Your task to perform on an android device: Open Google Maps and go to "Timeline" Image 0: 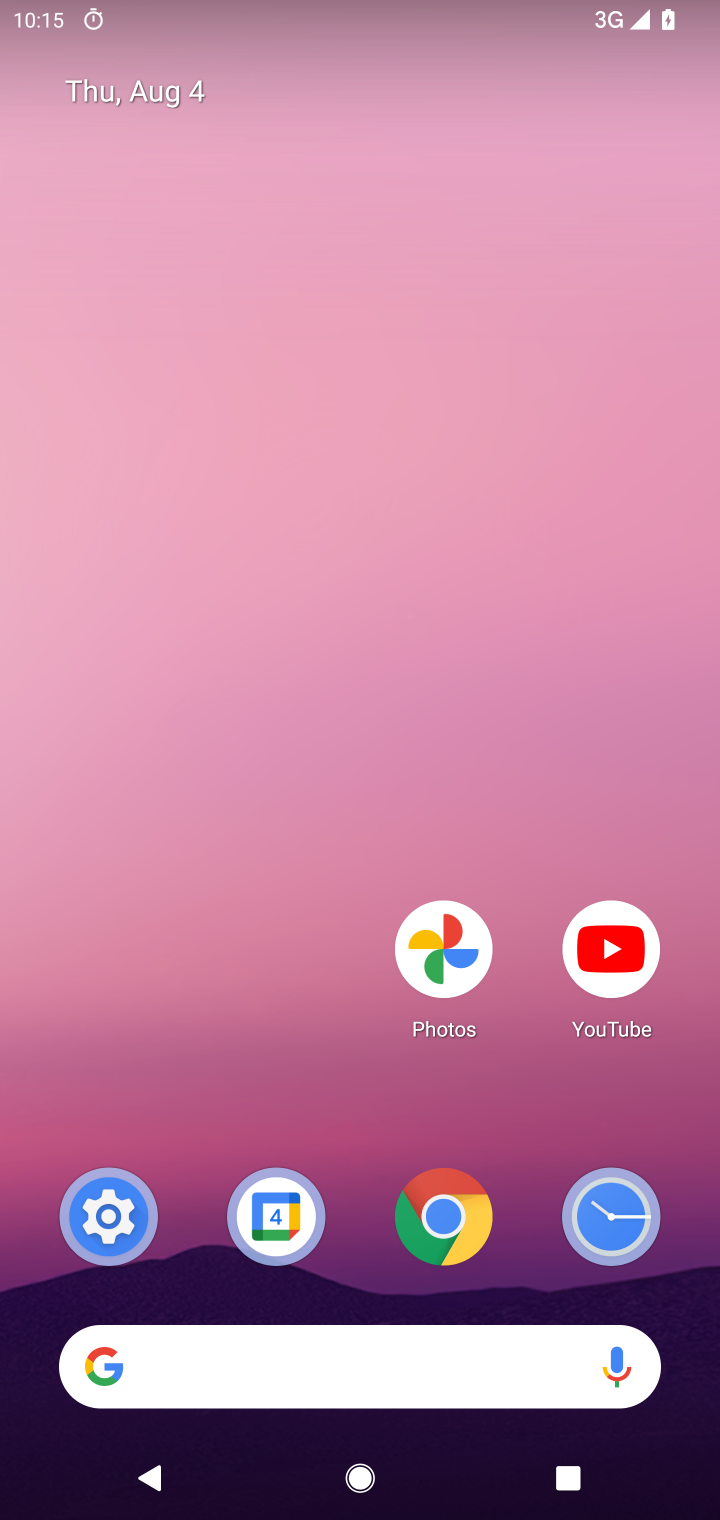
Step 0: drag from (359, 1011) to (370, 135)
Your task to perform on an android device: Open Google Maps and go to "Timeline" Image 1: 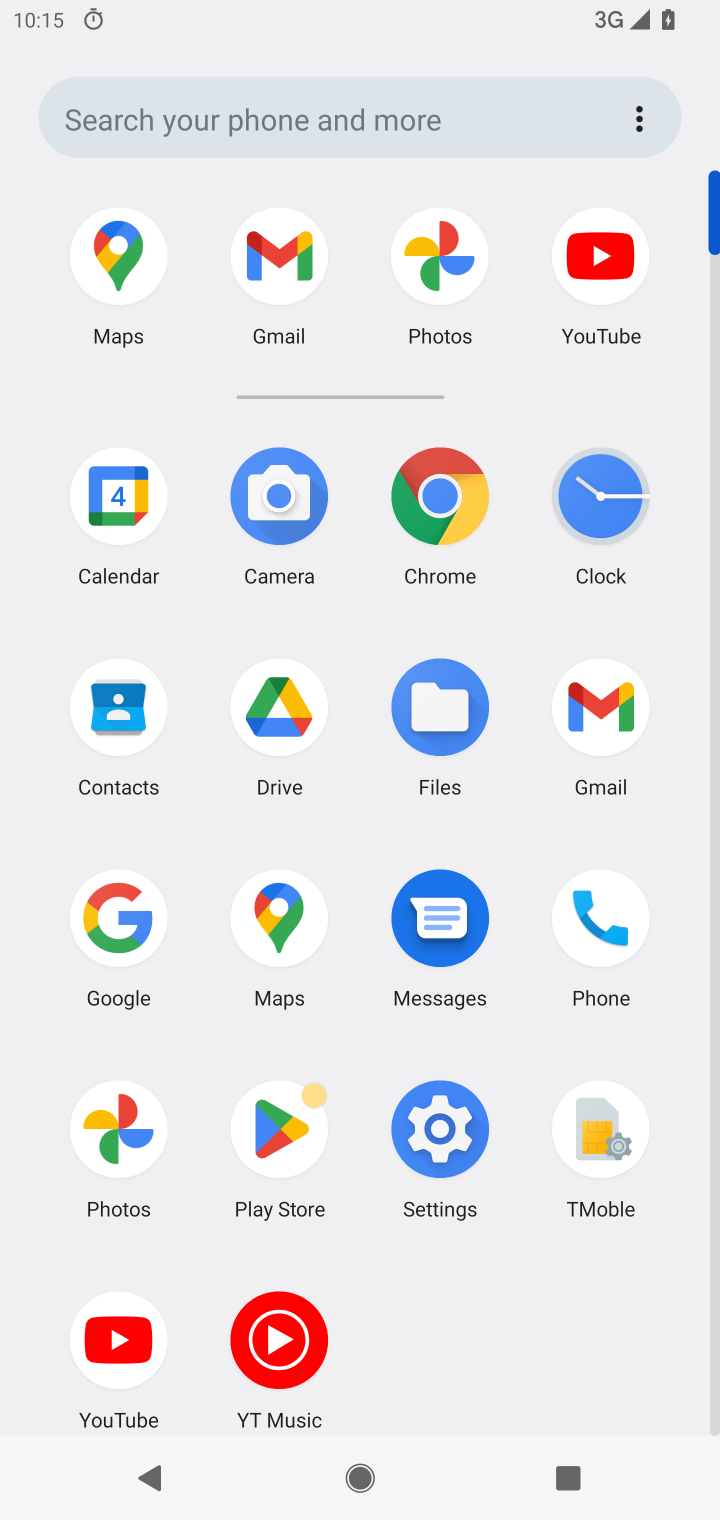
Step 1: click (270, 916)
Your task to perform on an android device: Open Google Maps and go to "Timeline" Image 2: 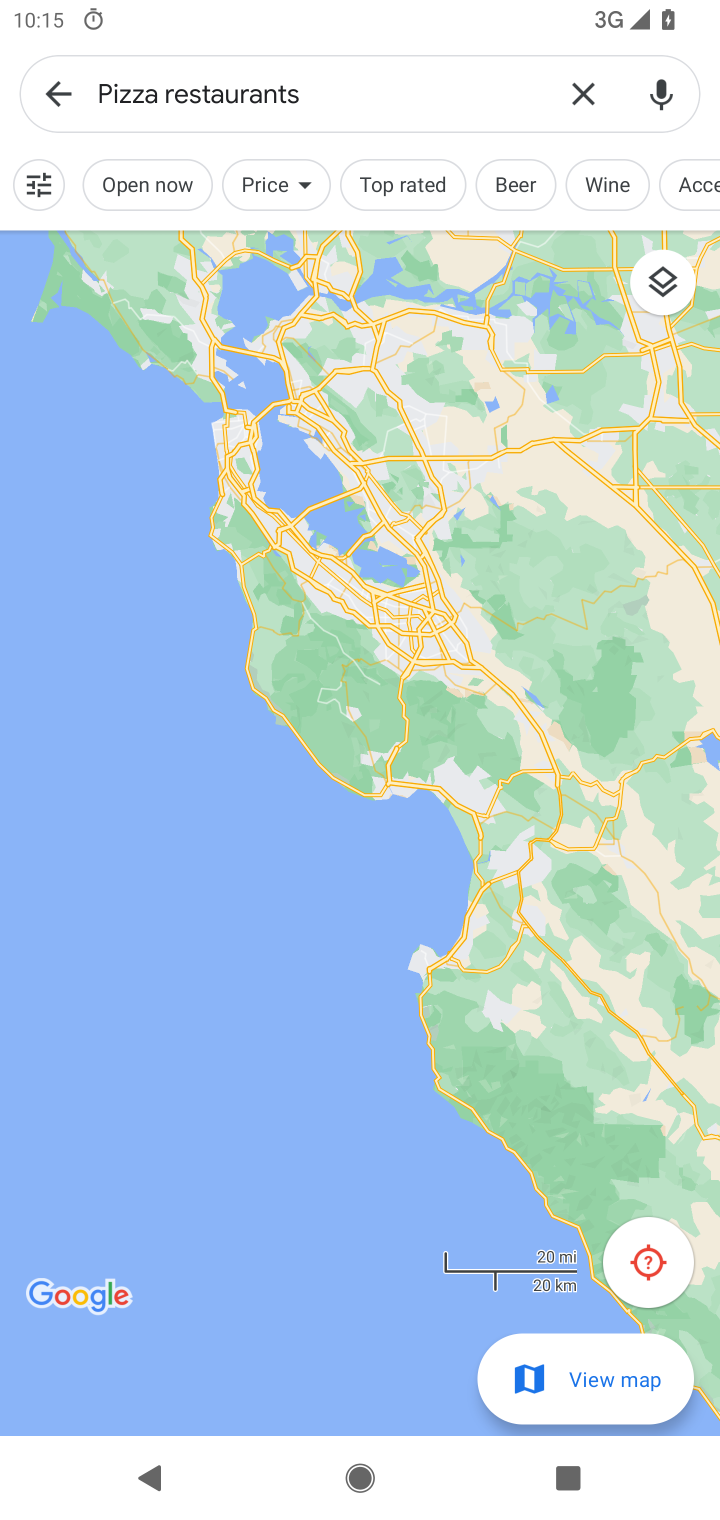
Step 2: click (48, 97)
Your task to perform on an android device: Open Google Maps and go to "Timeline" Image 3: 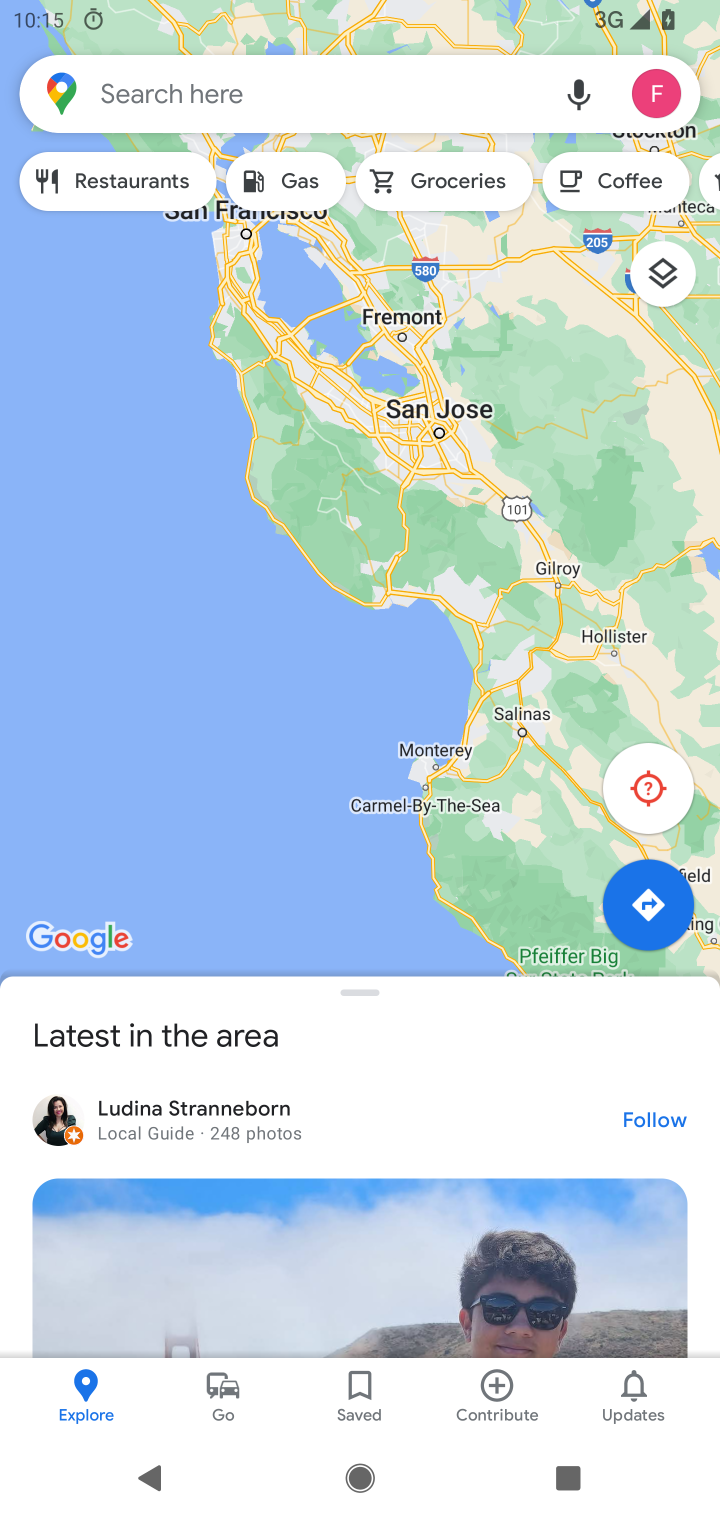
Step 3: click (651, 92)
Your task to perform on an android device: Open Google Maps and go to "Timeline" Image 4: 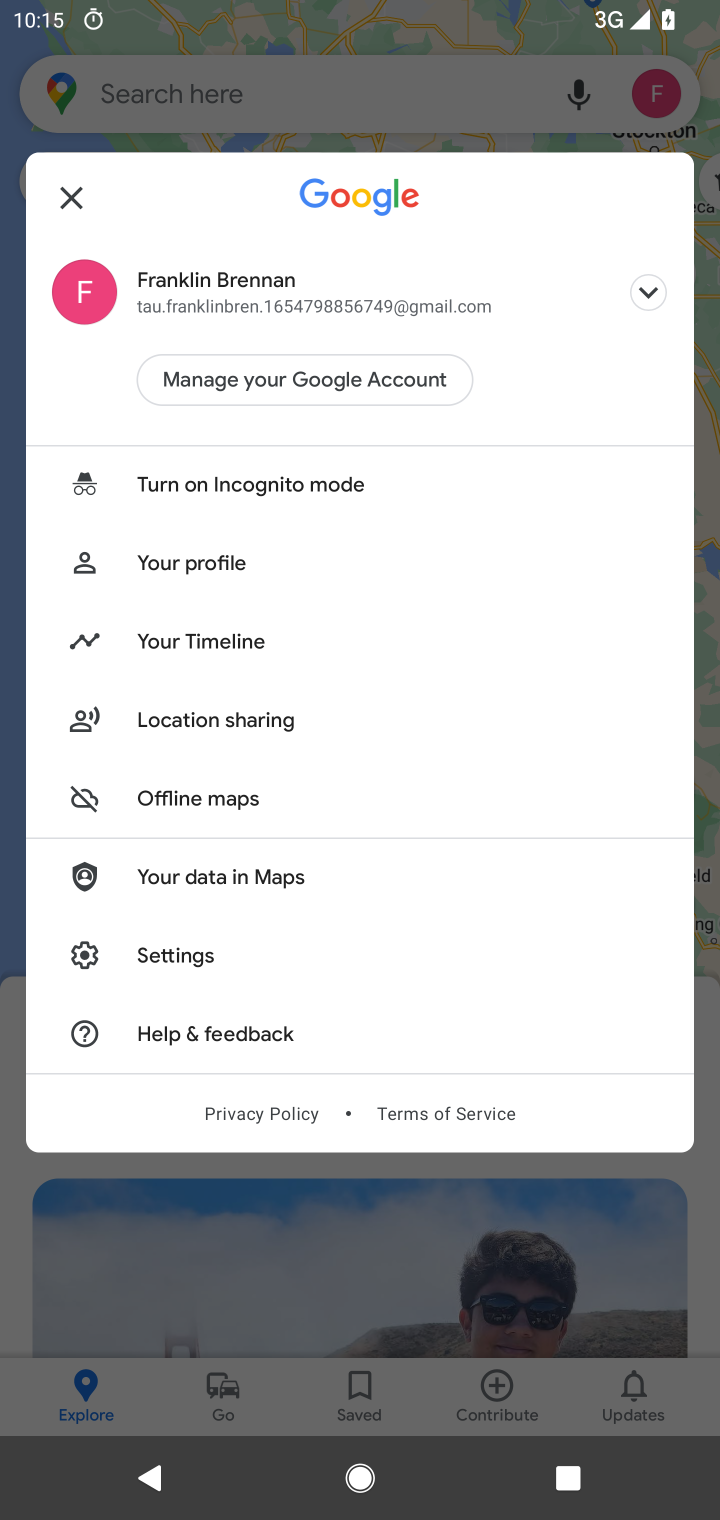
Step 4: click (230, 635)
Your task to perform on an android device: Open Google Maps and go to "Timeline" Image 5: 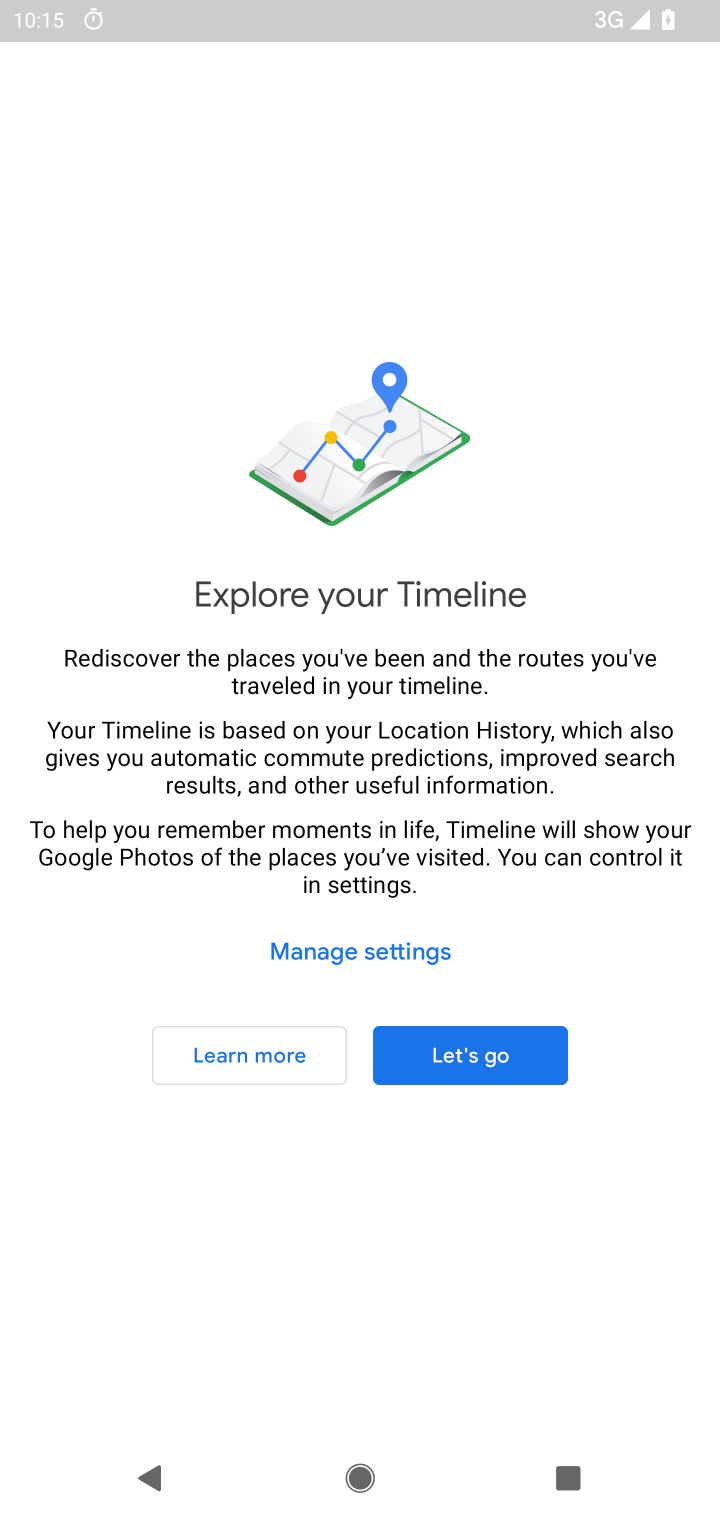
Step 5: click (438, 1064)
Your task to perform on an android device: Open Google Maps and go to "Timeline" Image 6: 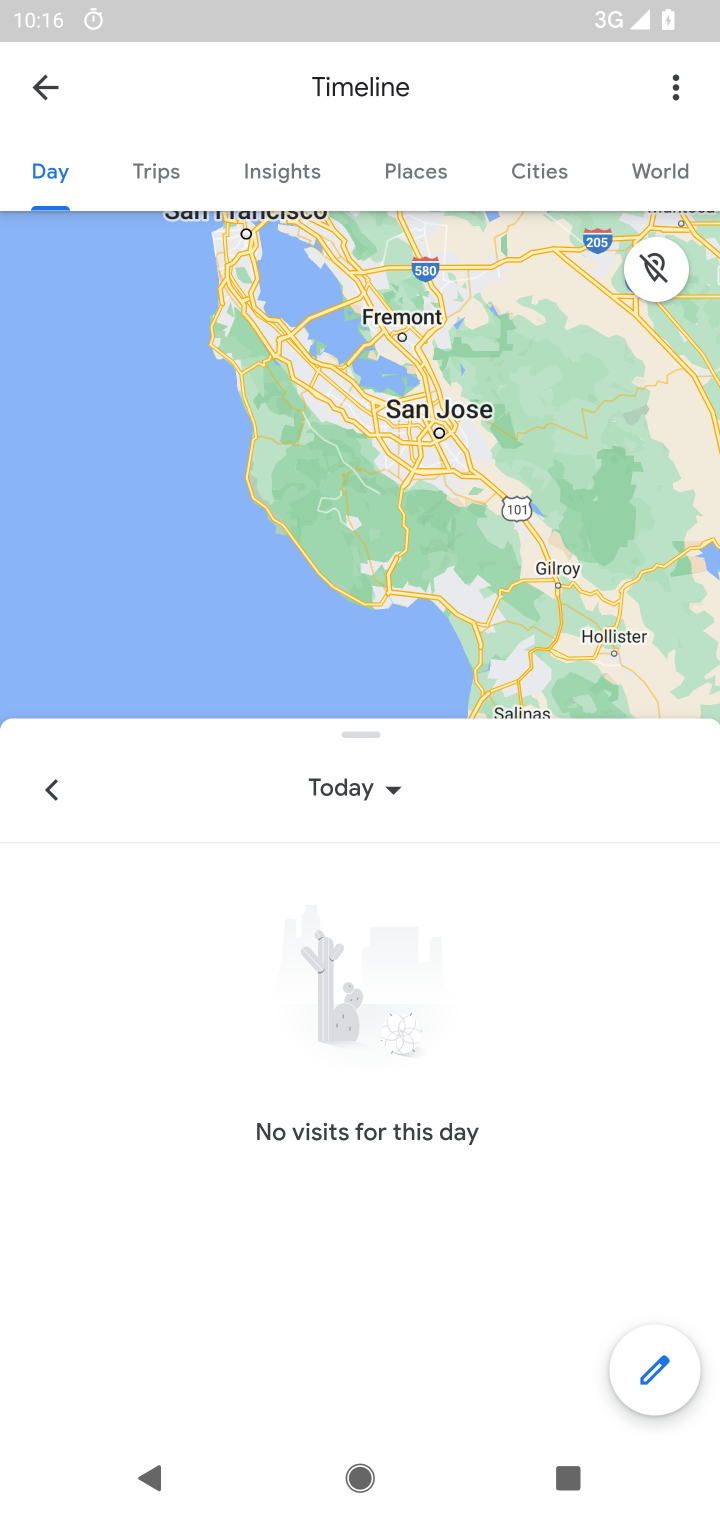
Step 6: task complete